Your task to perform on an android device: Go to CNN.com Image 0: 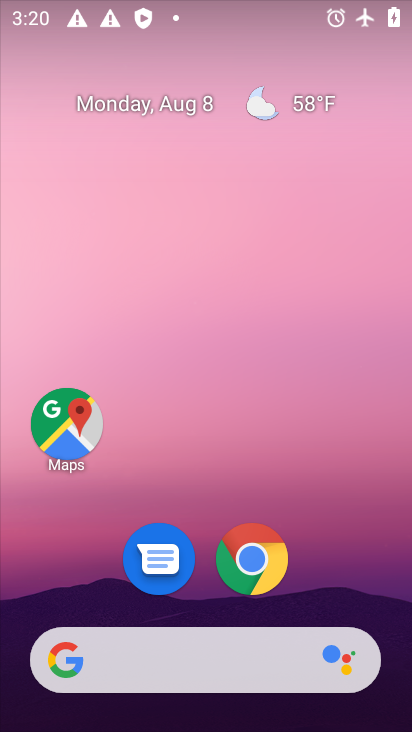
Step 0: click (252, 557)
Your task to perform on an android device: Go to CNN.com Image 1: 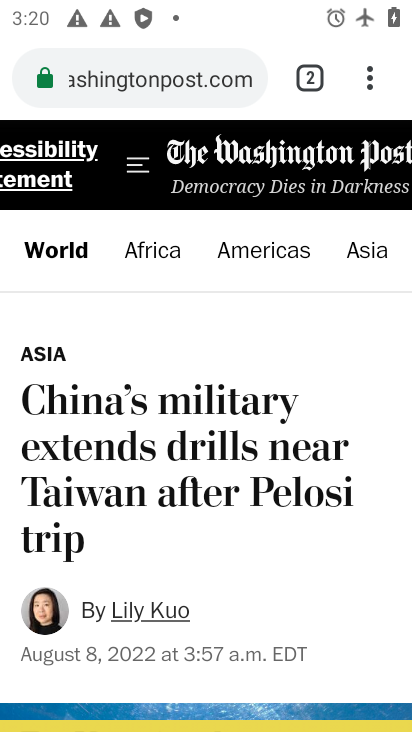
Step 1: click (172, 74)
Your task to perform on an android device: Go to CNN.com Image 2: 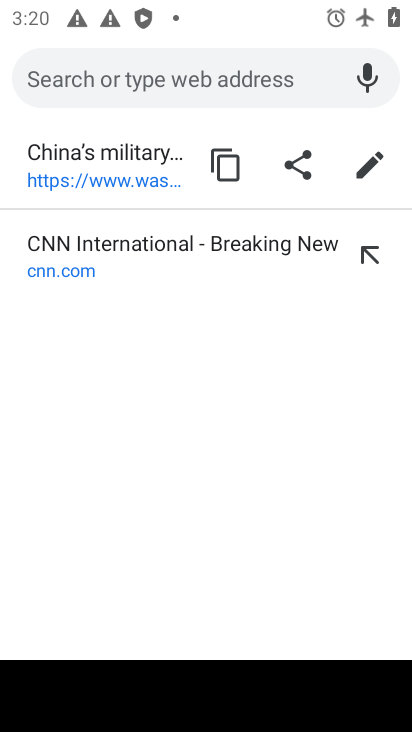
Step 2: click (272, 247)
Your task to perform on an android device: Go to CNN.com Image 3: 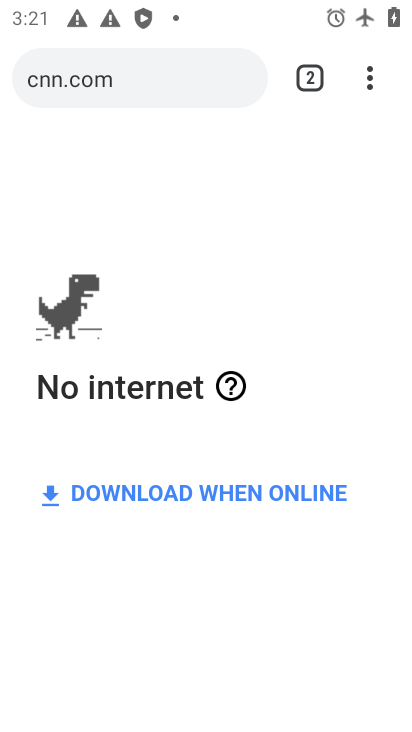
Step 3: task complete